Your task to perform on an android device: turn on notifications settings in the gmail app Image 0: 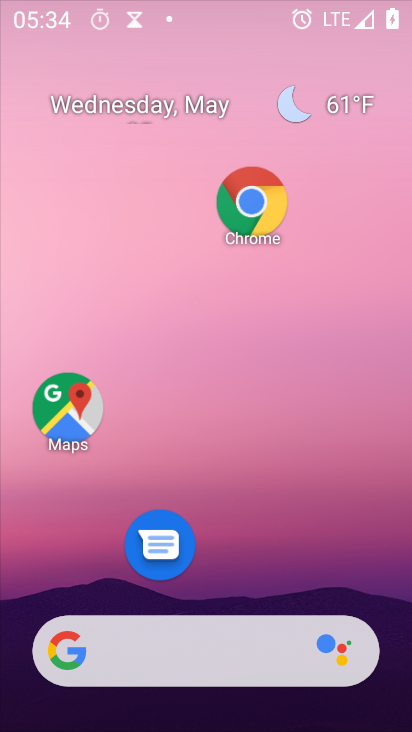
Step 0: drag from (238, 625) to (227, 159)
Your task to perform on an android device: turn on notifications settings in the gmail app Image 1: 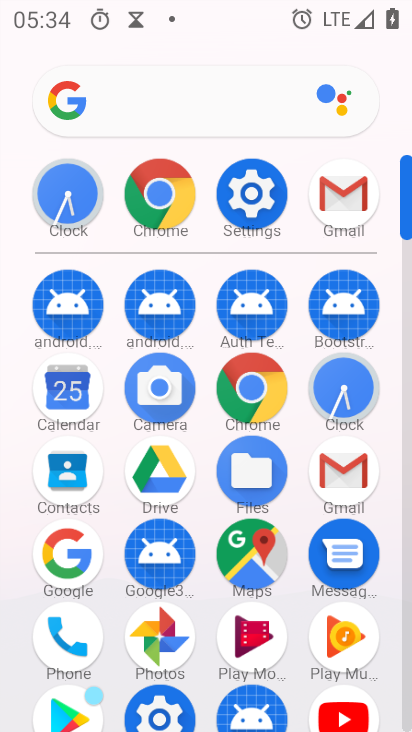
Step 1: click (357, 477)
Your task to perform on an android device: turn on notifications settings in the gmail app Image 2: 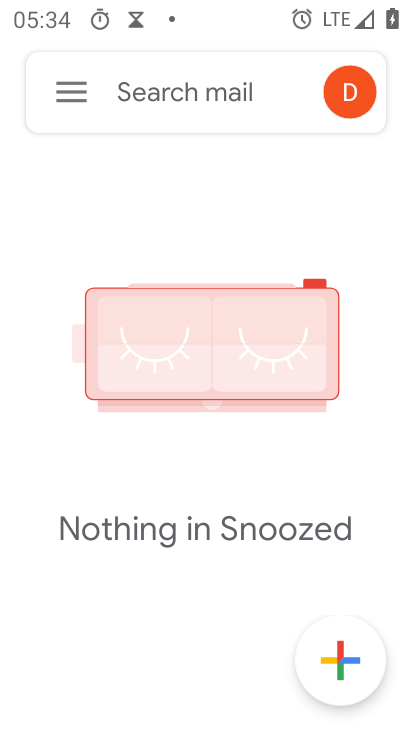
Step 2: click (75, 94)
Your task to perform on an android device: turn on notifications settings in the gmail app Image 3: 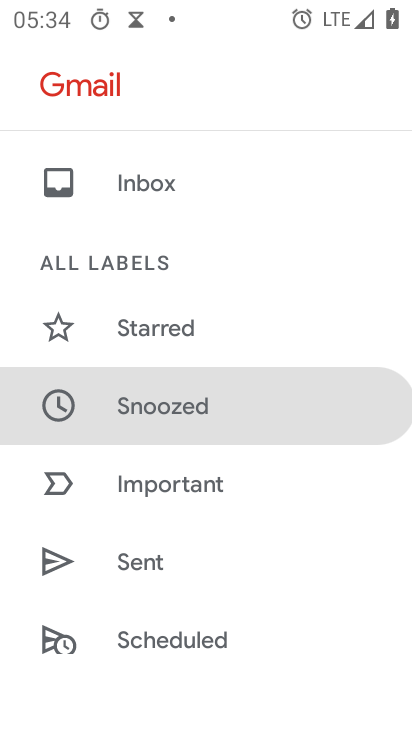
Step 3: drag from (180, 648) to (180, 221)
Your task to perform on an android device: turn on notifications settings in the gmail app Image 4: 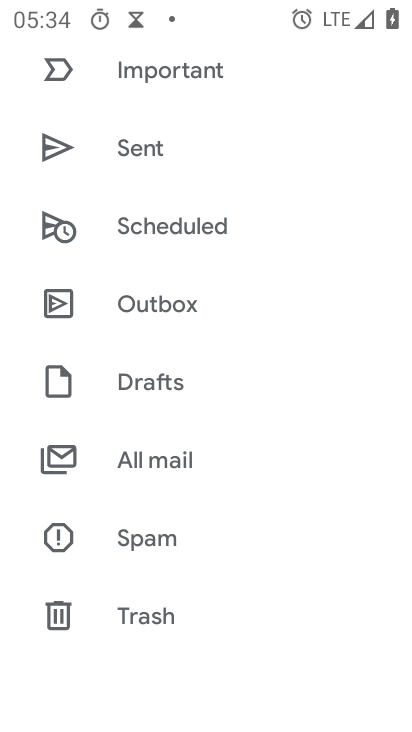
Step 4: drag from (159, 623) to (155, 214)
Your task to perform on an android device: turn on notifications settings in the gmail app Image 5: 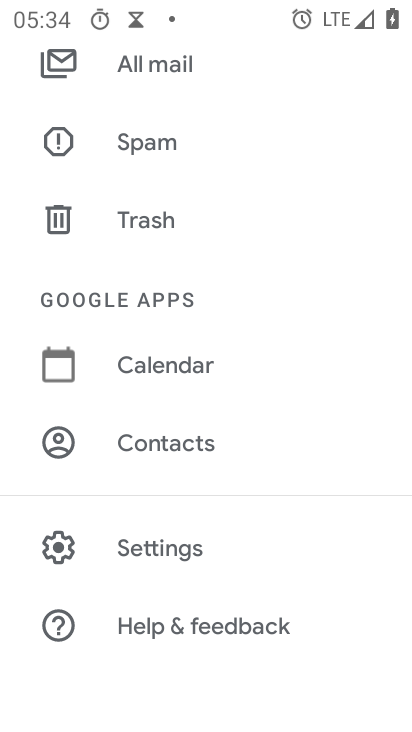
Step 5: click (152, 561)
Your task to perform on an android device: turn on notifications settings in the gmail app Image 6: 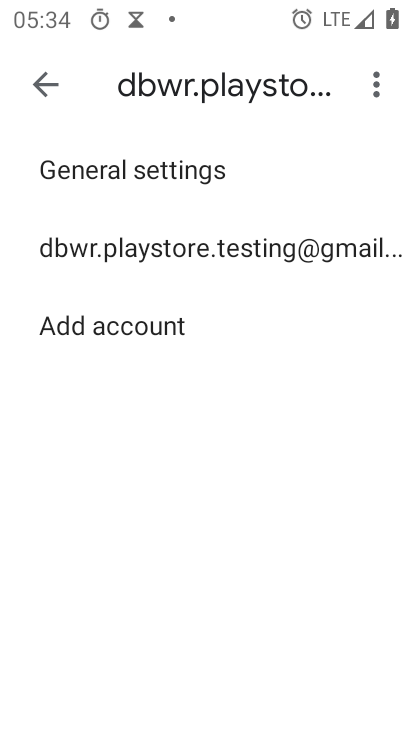
Step 6: click (115, 165)
Your task to perform on an android device: turn on notifications settings in the gmail app Image 7: 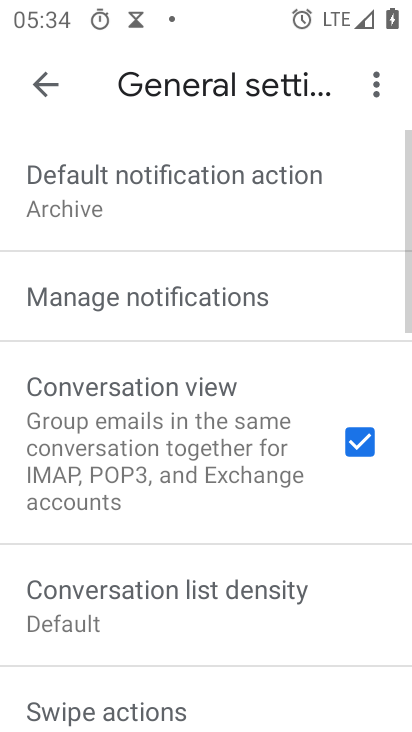
Step 7: click (136, 307)
Your task to perform on an android device: turn on notifications settings in the gmail app Image 8: 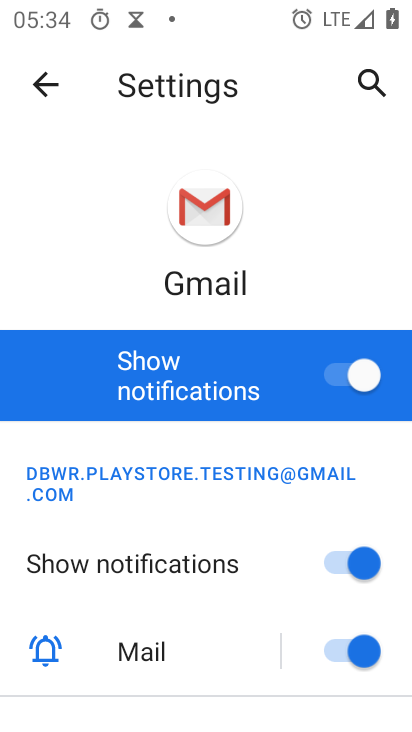
Step 8: task complete